Your task to perform on an android device: Open calendar and show me the first week of next month Image 0: 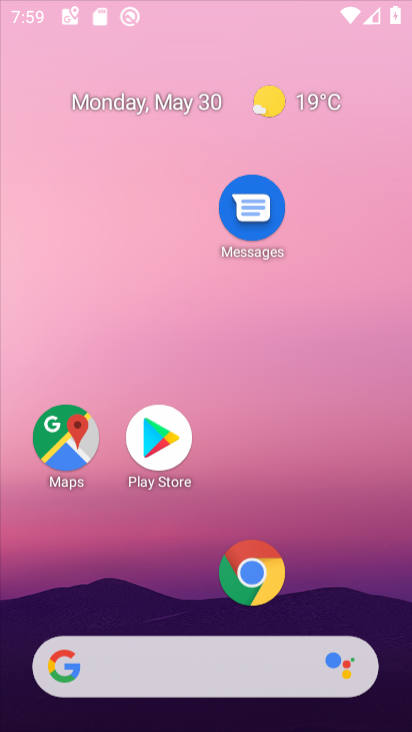
Step 0: drag from (256, 394) to (189, 209)
Your task to perform on an android device: Open calendar and show me the first week of next month Image 1: 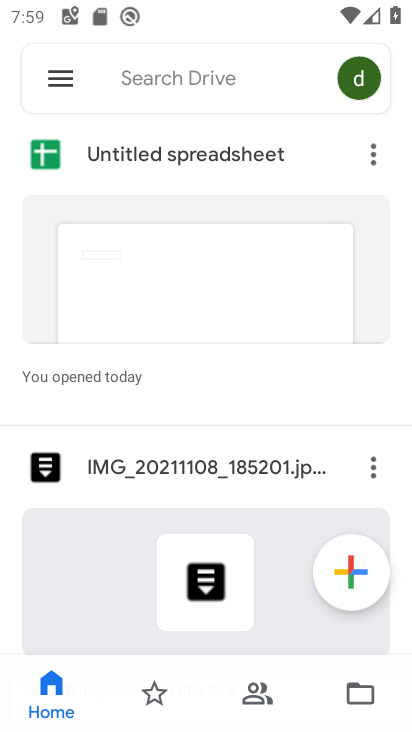
Step 1: press home button
Your task to perform on an android device: Open calendar and show me the first week of next month Image 2: 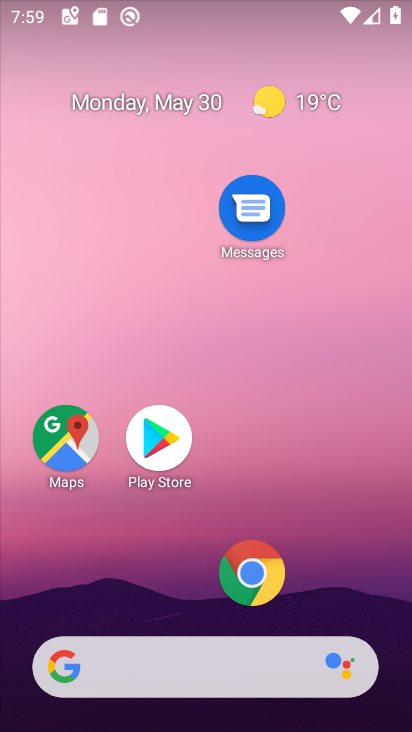
Step 2: drag from (167, 593) to (192, 11)
Your task to perform on an android device: Open calendar and show me the first week of next month Image 3: 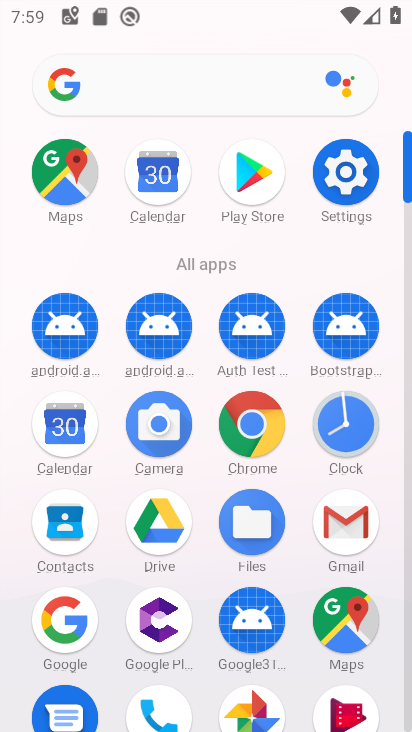
Step 3: click (339, 192)
Your task to perform on an android device: Open calendar and show me the first week of next month Image 4: 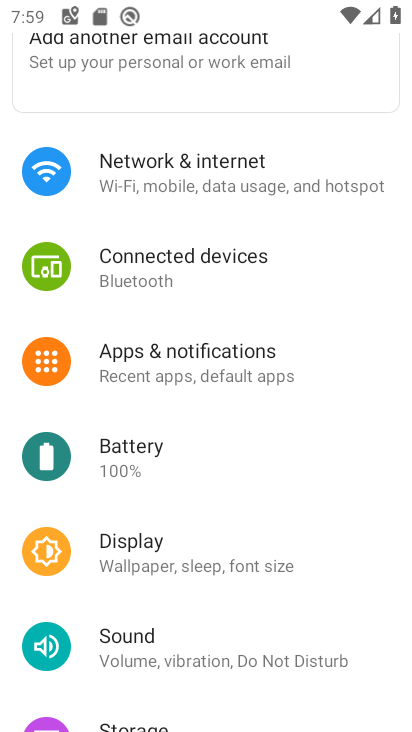
Step 4: drag from (226, 209) to (220, 374)
Your task to perform on an android device: Open calendar and show me the first week of next month Image 5: 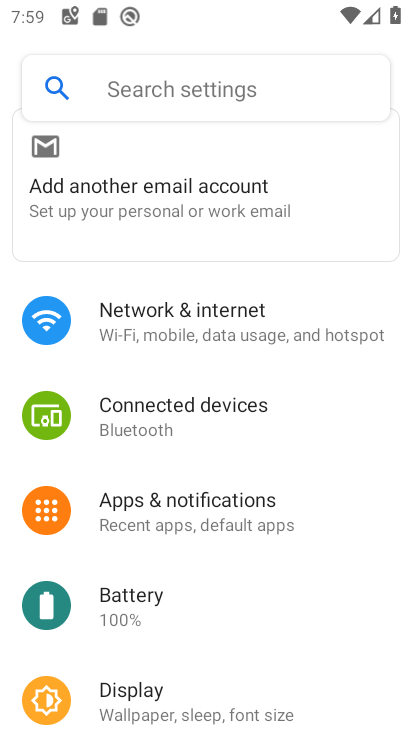
Step 5: click (217, 338)
Your task to perform on an android device: Open calendar and show me the first week of next month Image 6: 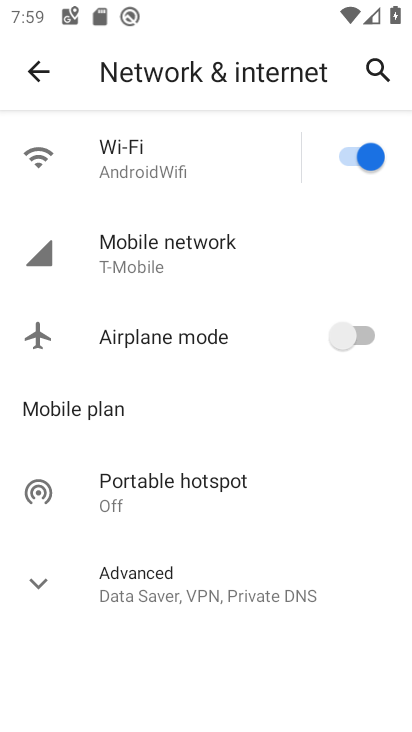
Step 6: press home button
Your task to perform on an android device: Open calendar and show me the first week of next month Image 7: 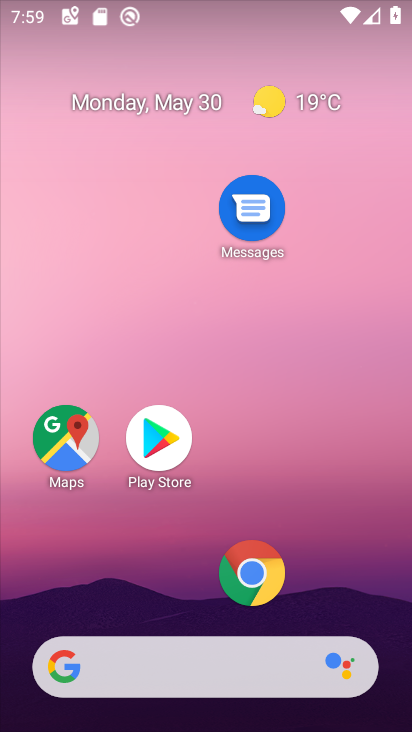
Step 7: drag from (183, 615) to (223, 65)
Your task to perform on an android device: Open calendar and show me the first week of next month Image 8: 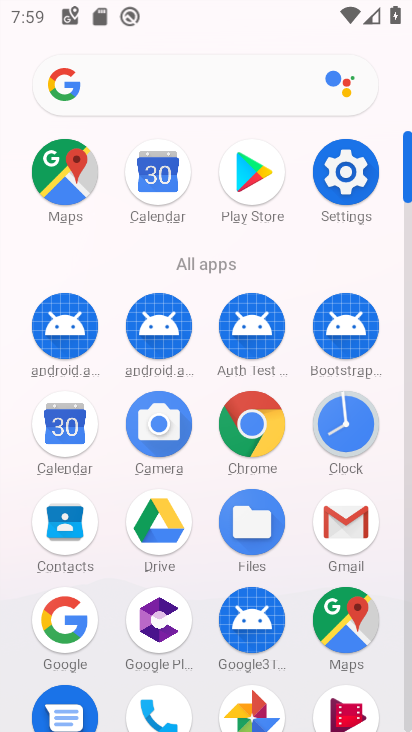
Step 8: click (58, 451)
Your task to perform on an android device: Open calendar and show me the first week of next month Image 9: 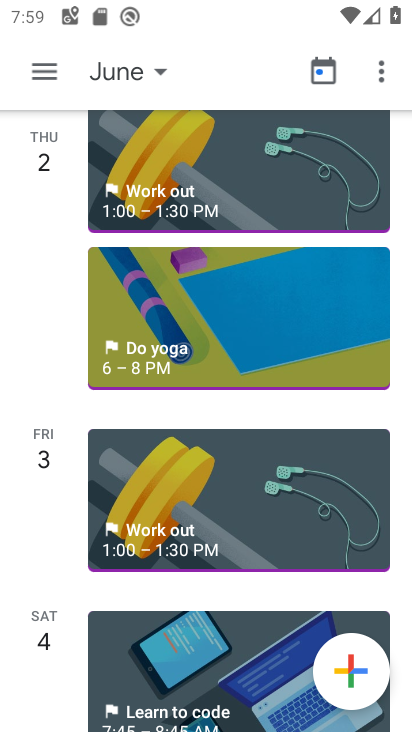
Step 9: click (50, 74)
Your task to perform on an android device: Open calendar and show me the first week of next month Image 10: 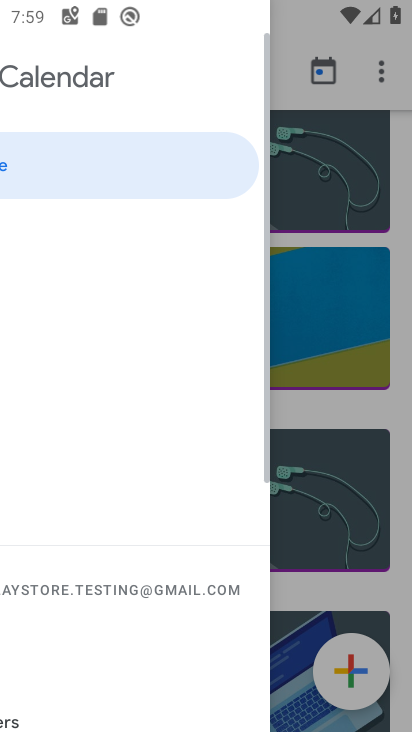
Step 10: click (36, 76)
Your task to perform on an android device: Open calendar and show me the first week of next month Image 11: 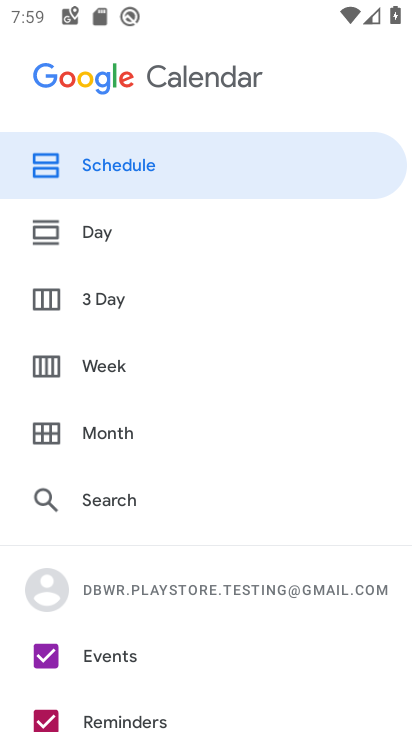
Step 11: click (132, 356)
Your task to perform on an android device: Open calendar and show me the first week of next month Image 12: 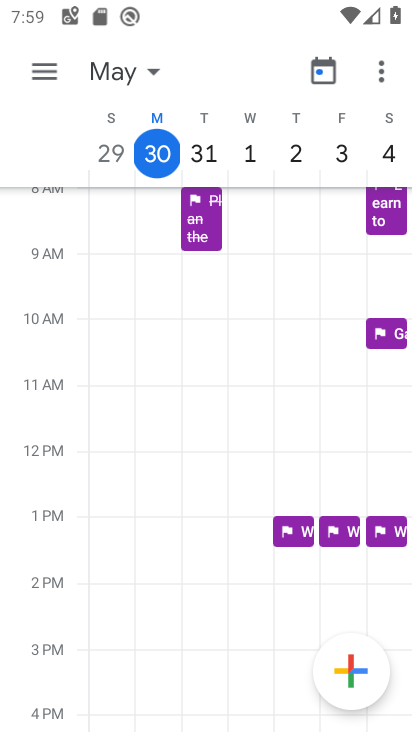
Step 12: task complete